Your task to perform on an android device: Show the shopping cart on target. Search for usb-c on target, select the first entry, add it to the cart, then select checkout. Image 0: 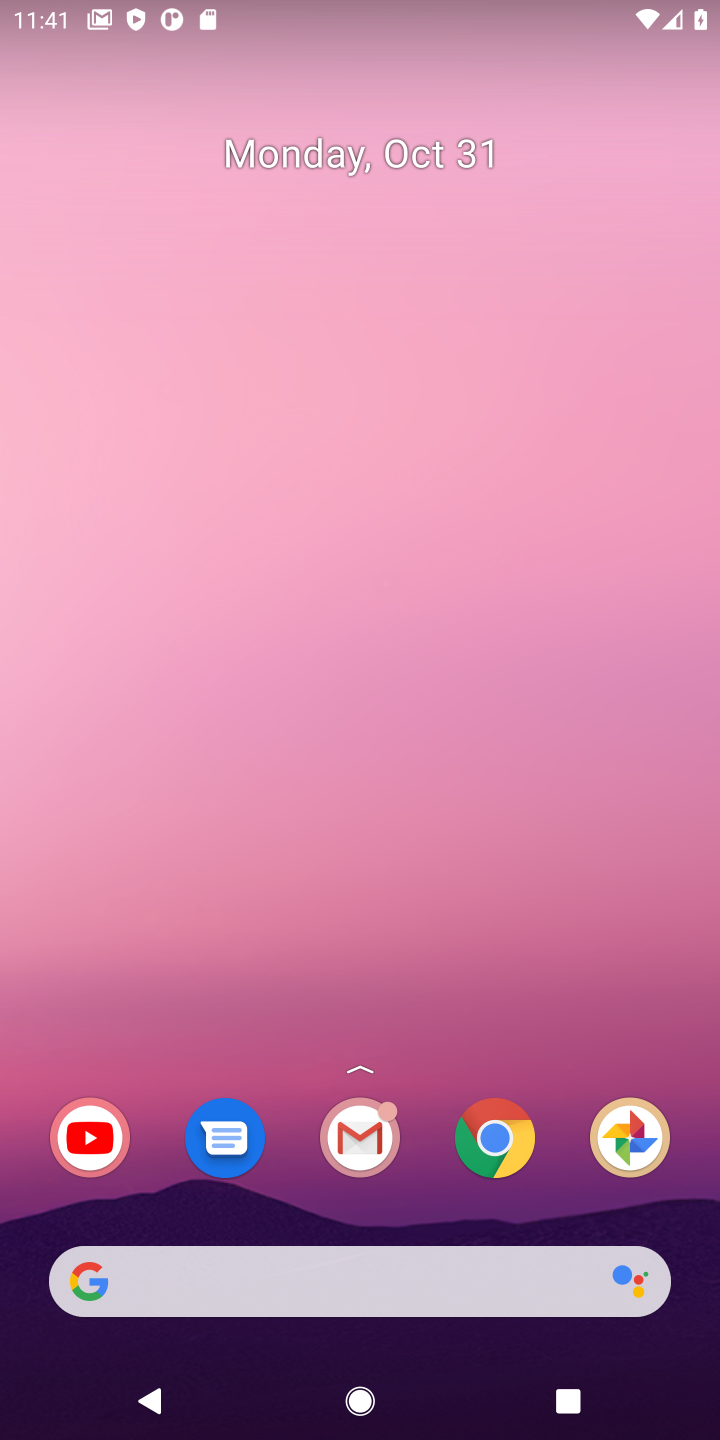
Step 0: click (520, 1128)
Your task to perform on an android device: Show the shopping cart on target. Search for usb-c on target, select the first entry, add it to the cart, then select checkout. Image 1: 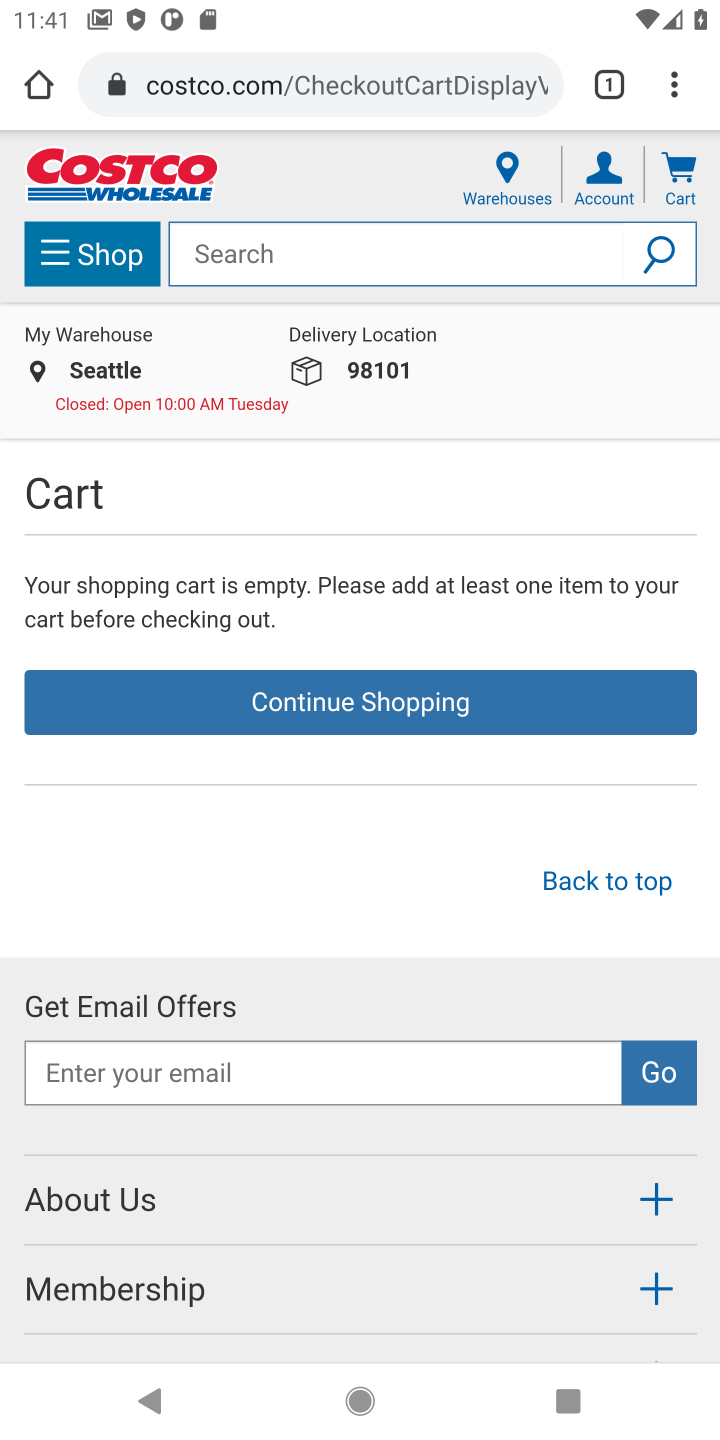
Step 1: click (226, 70)
Your task to perform on an android device: Show the shopping cart on target. Search for usb-c on target, select the first entry, add it to the cart, then select checkout. Image 2: 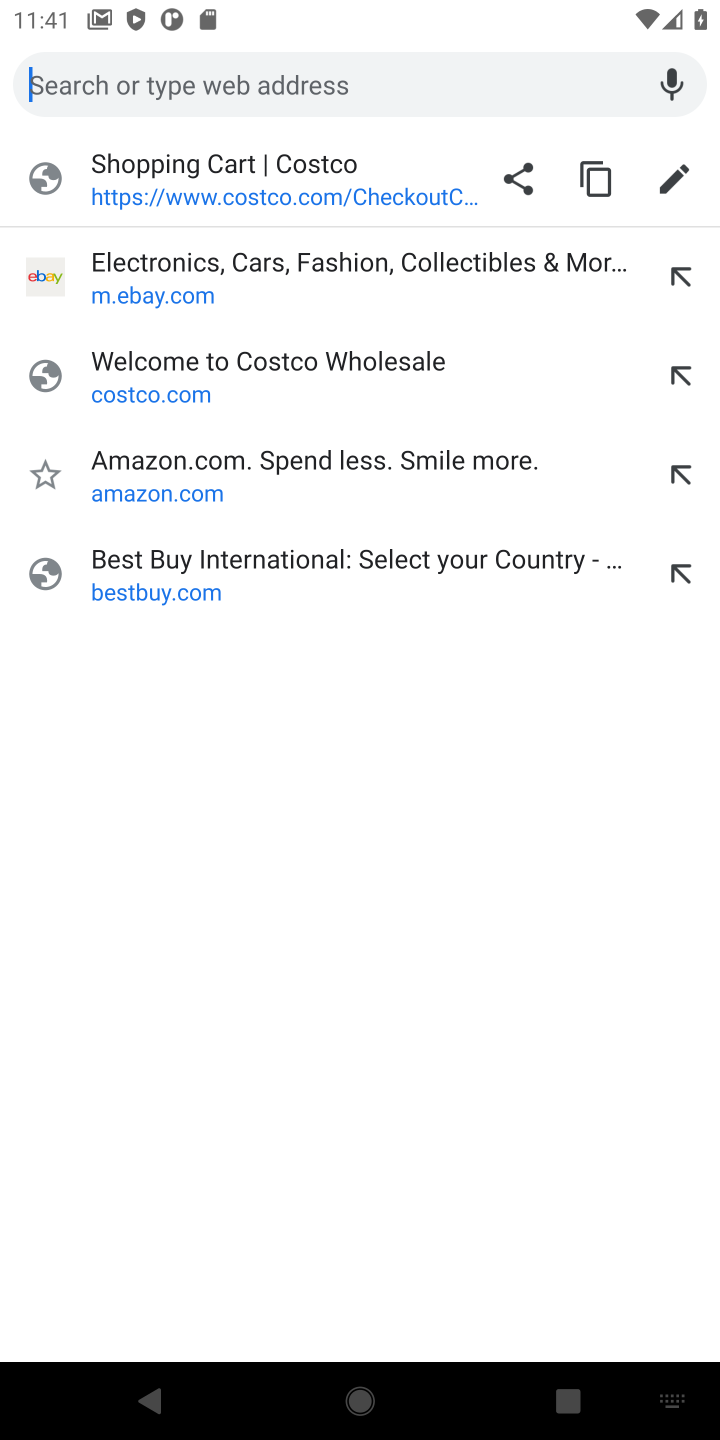
Step 2: type "target"
Your task to perform on an android device: Show the shopping cart on target. Search for usb-c on target, select the first entry, add it to the cart, then select checkout. Image 3: 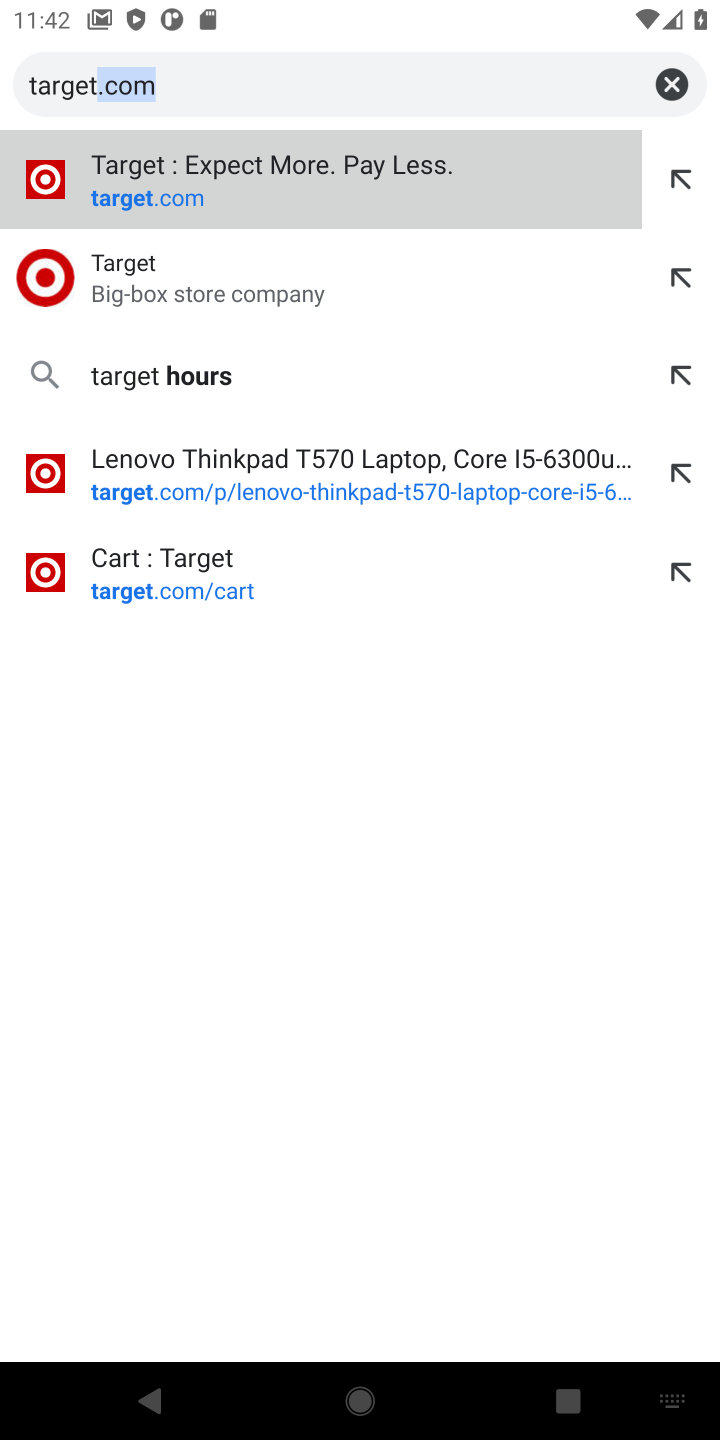
Step 3: click (302, 272)
Your task to perform on an android device: Show the shopping cart on target. Search for usb-c on target, select the first entry, add it to the cart, then select checkout. Image 4: 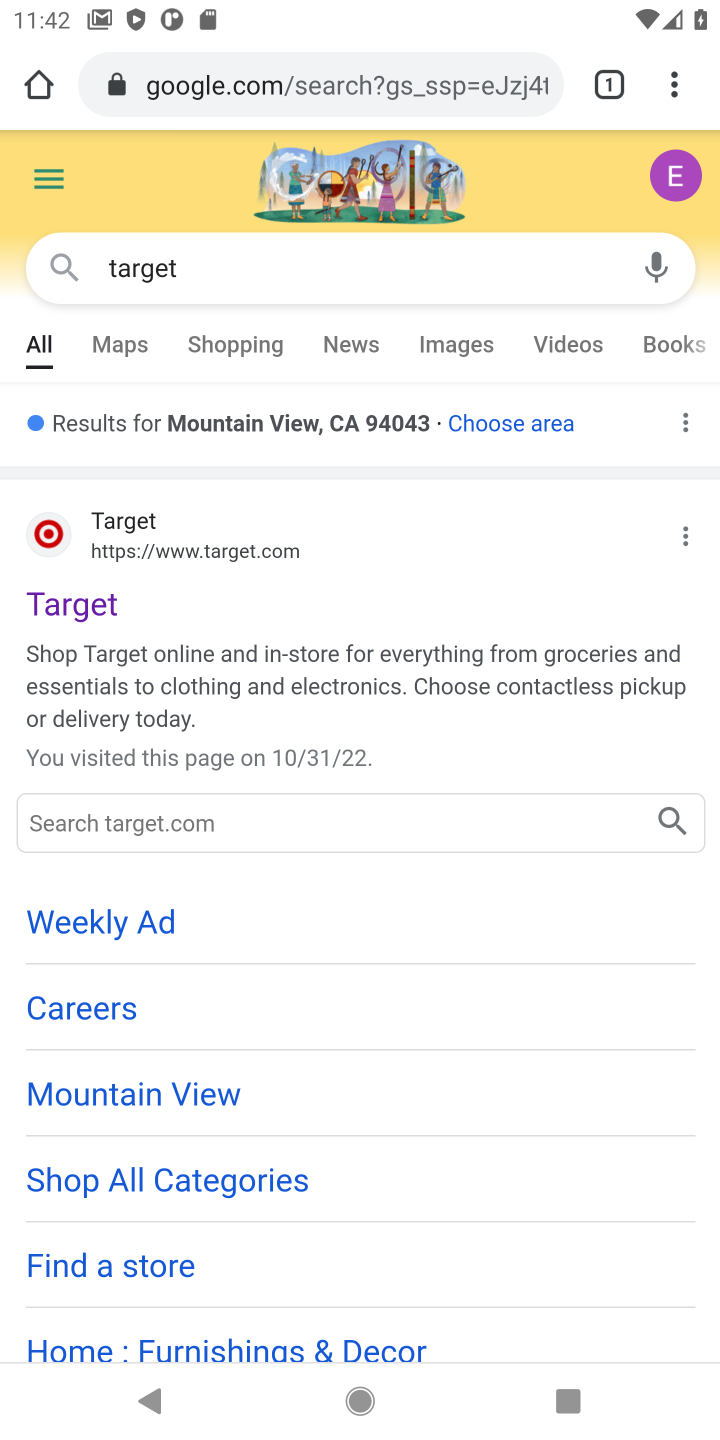
Step 4: click (44, 620)
Your task to perform on an android device: Show the shopping cart on target. Search for usb-c on target, select the first entry, add it to the cart, then select checkout. Image 5: 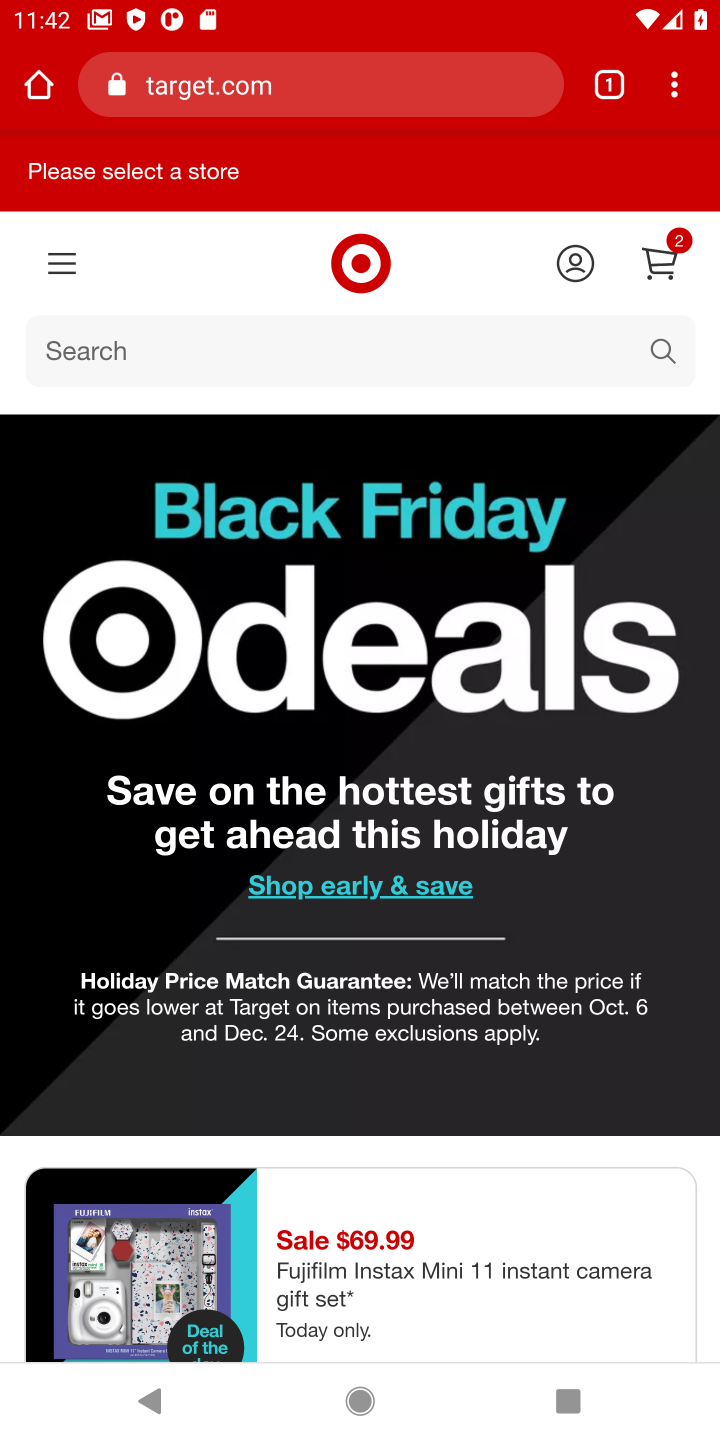
Step 5: click (661, 257)
Your task to perform on an android device: Show the shopping cart on target. Search for usb-c on target, select the first entry, add it to the cart, then select checkout. Image 6: 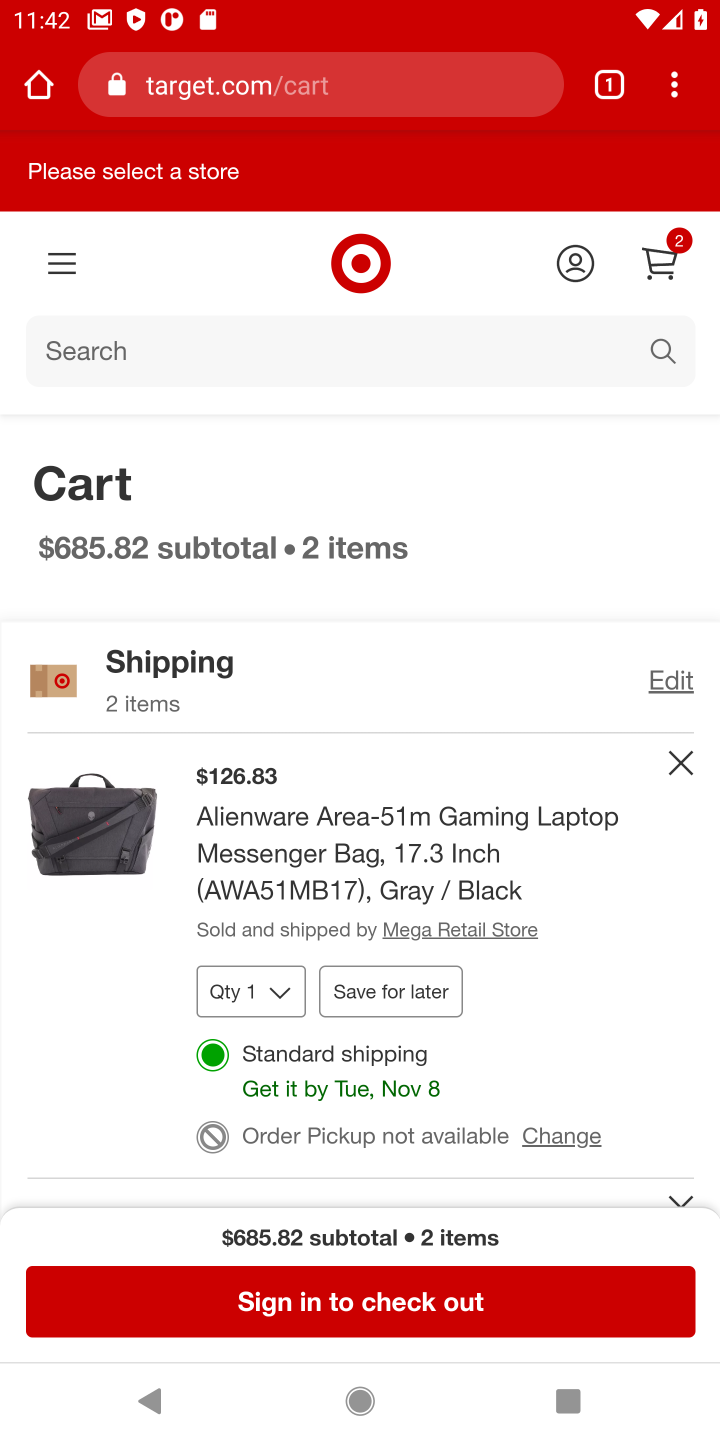
Step 6: click (333, 367)
Your task to perform on an android device: Show the shopping cart on target. Search for usb-c on target, select the first entry, add it to the cart, then select checkout. Image 7: 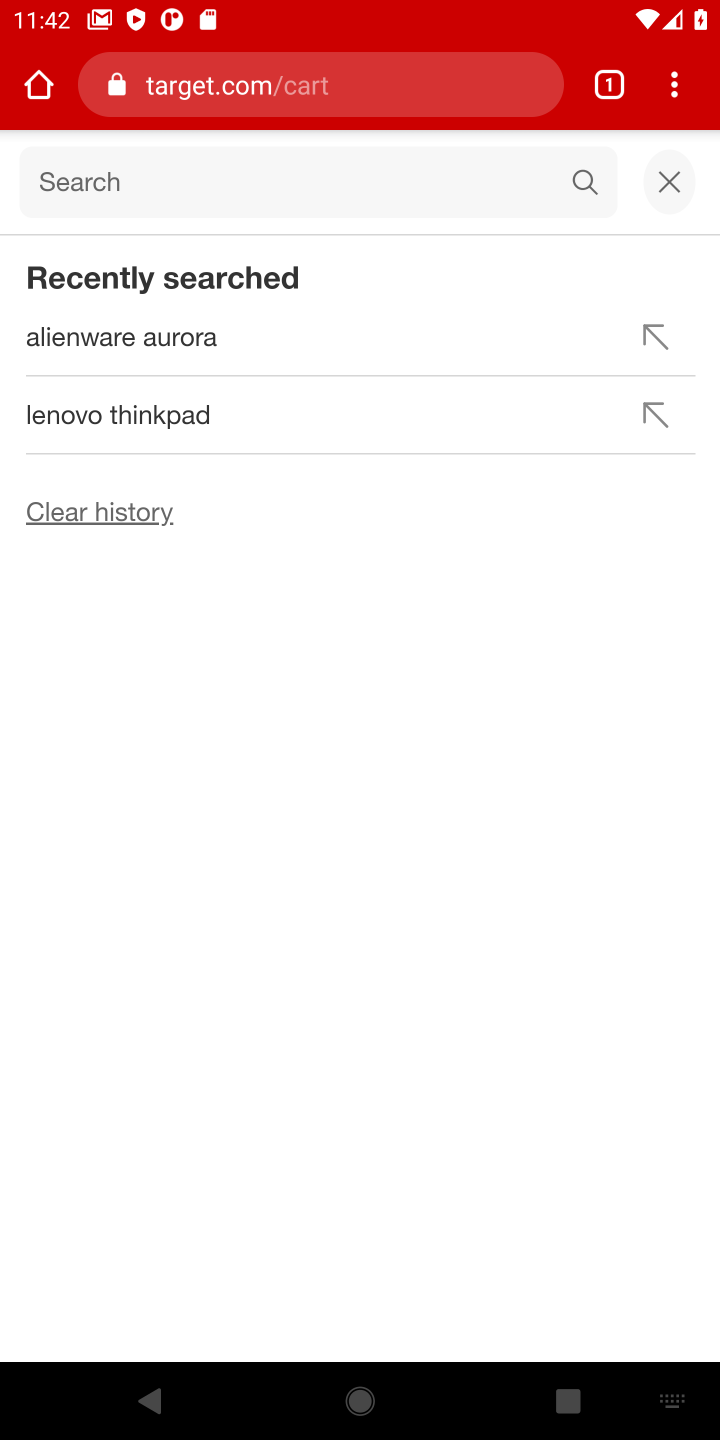
Step 7: type " usb-c "
Your task to perform on an android device: Show the shopping cart on target. Search for usb-c on target, select the first entry, add it to the cart, then select checkout. Image 8: 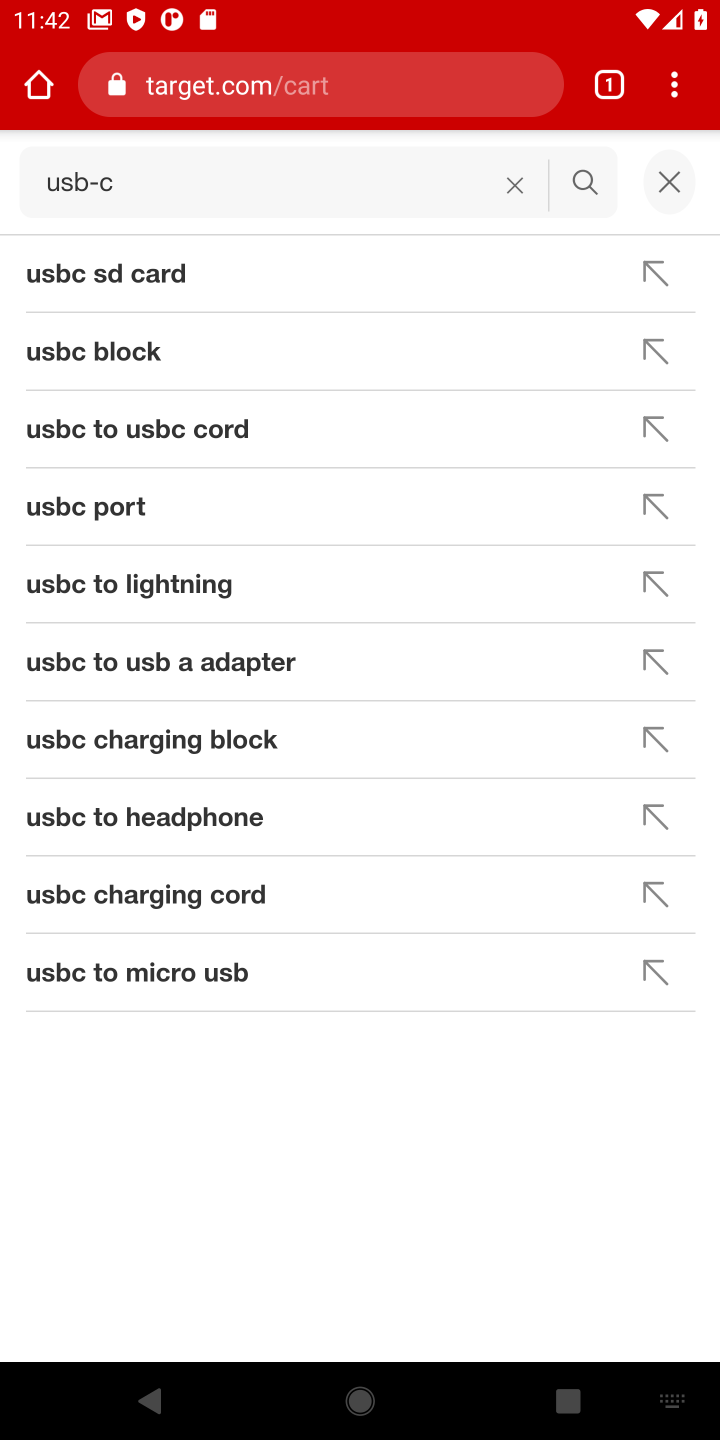
Step 8: click (577, 163)
Your task to perform on an android device: Show the shopping cart on target. Search for usb-c on target, select the first entry, add it to the cart, then select checkout. Image 9: 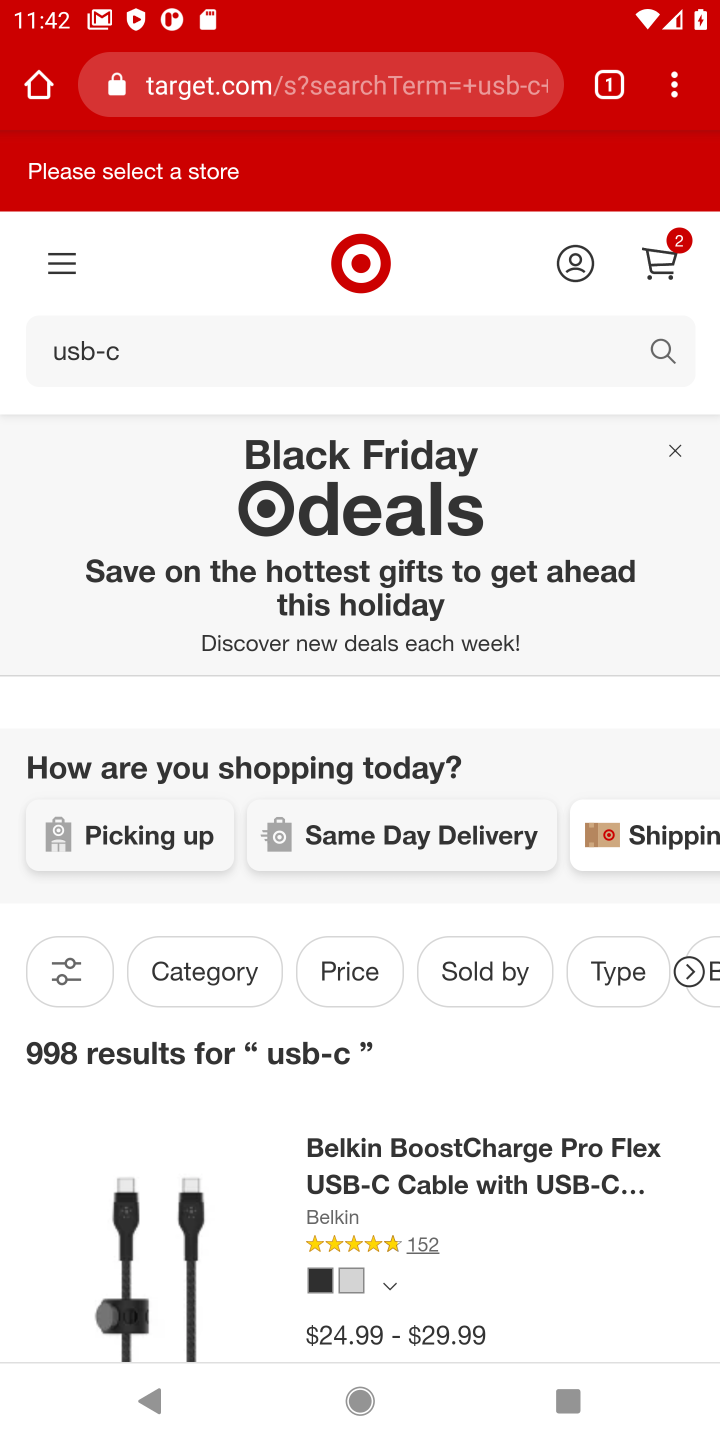
Step 9: click (499, 1141)
Your task to perform on an android device: Show the shopping cart on target. Search for usb-c on target, select the first entry, add it to the cart, then select checkout. Image 10: 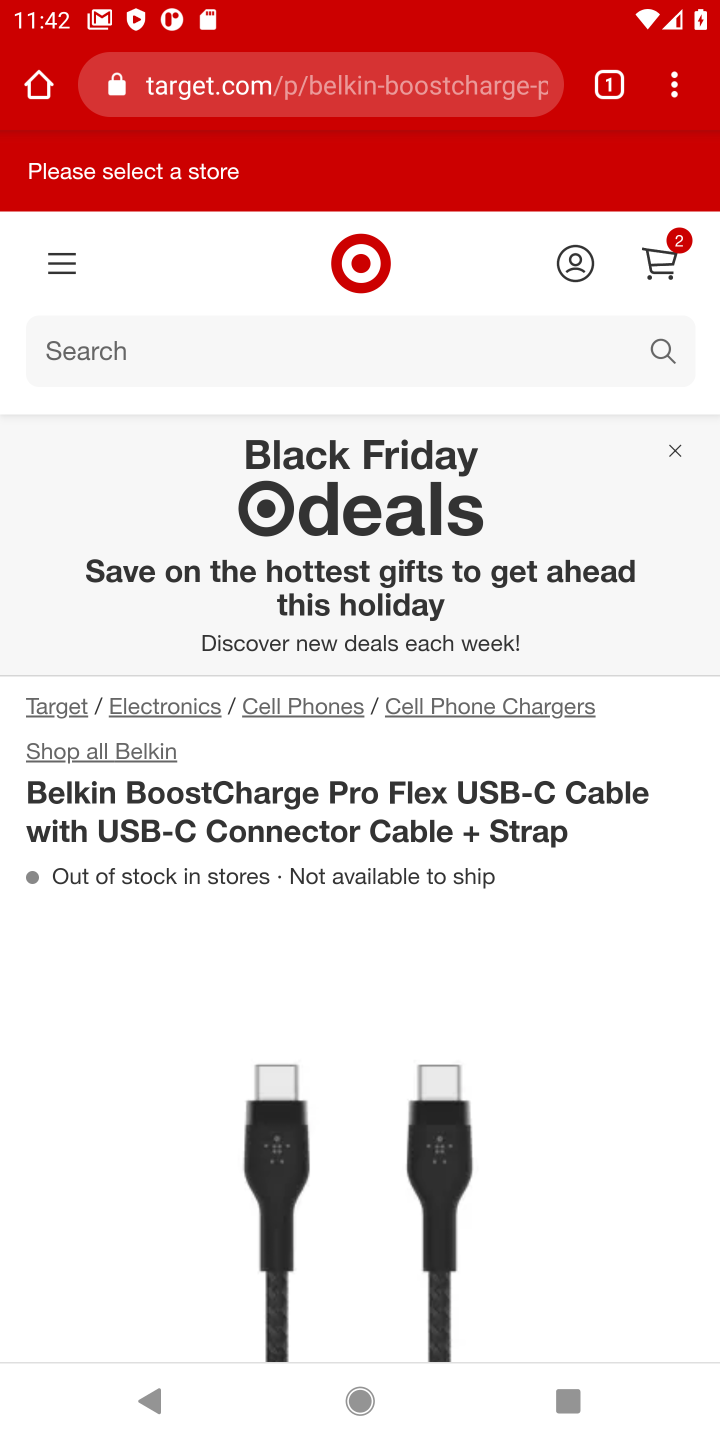
Step 10: drag from (499, 1129) to (445, 320)
Your task to perform on an android device: Show the shopping cart on target. Search for usb-c on target, select the first entry, add it to the cart, then select checkout. Image 11: 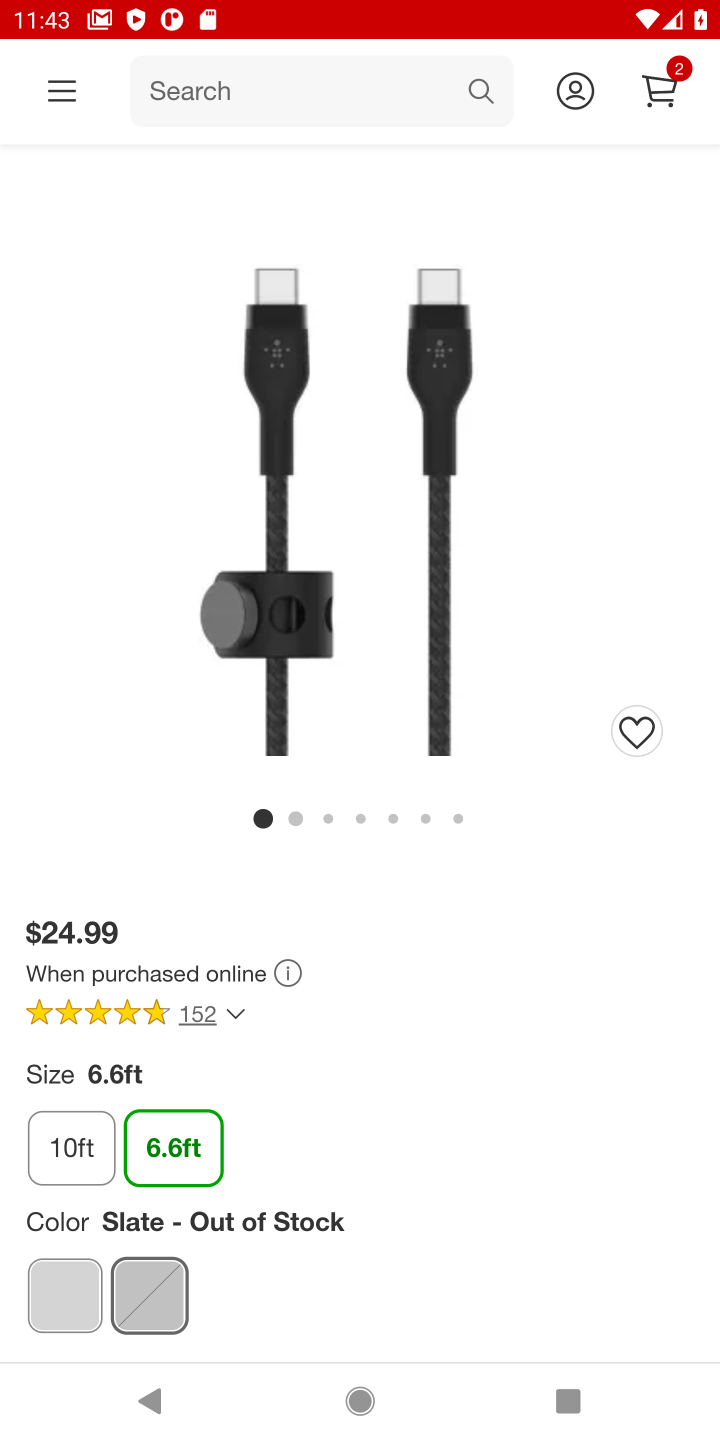
Step 11: click (65, 1278)
Your task to perform on an android device: Show the shopping cart on target. Search for usb-c on target, select the first entry, add it to the cart, then select checkout. Image 12: 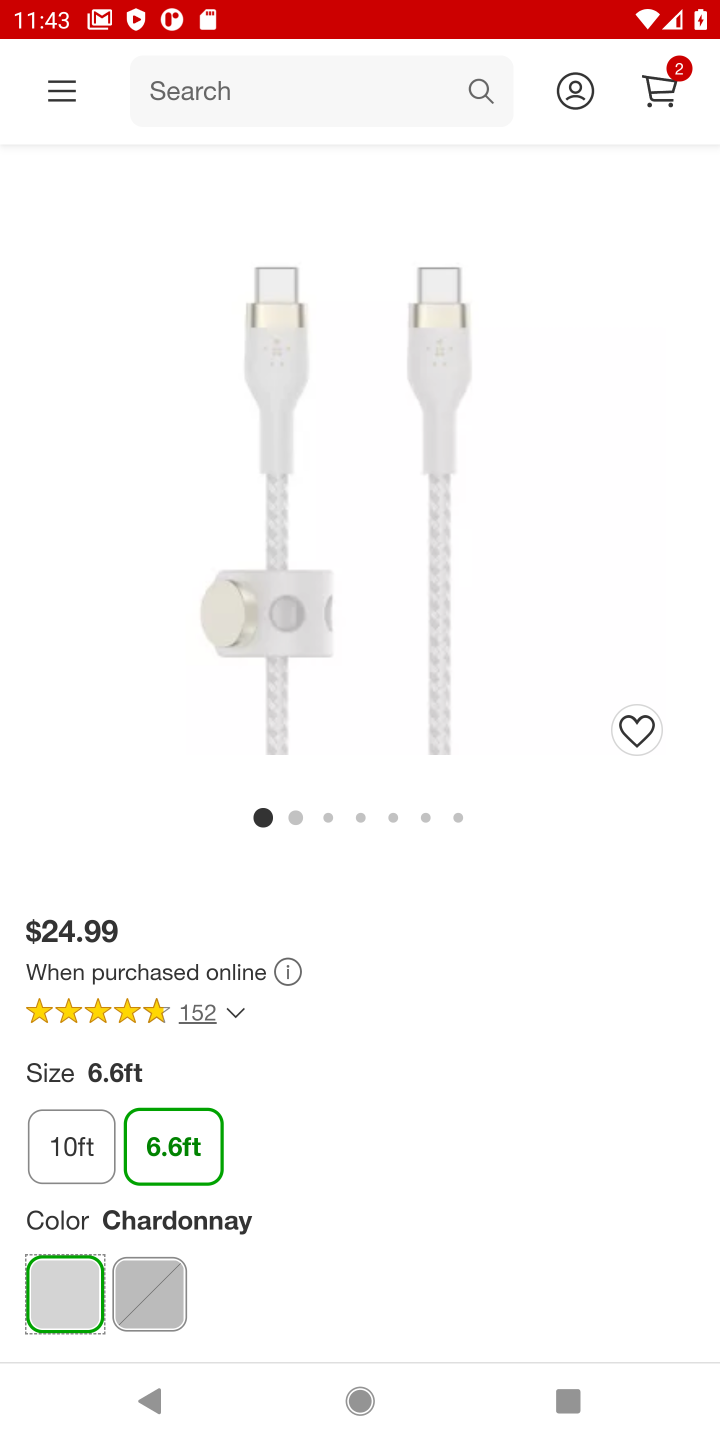
Step 12: drag from (586, 1263) to (606, 737)
Your task to perform on an android device: Show the shopping cart on target. Search for usb-c on target, select the first entry, add it to the cart, then select checkout. Image 13: 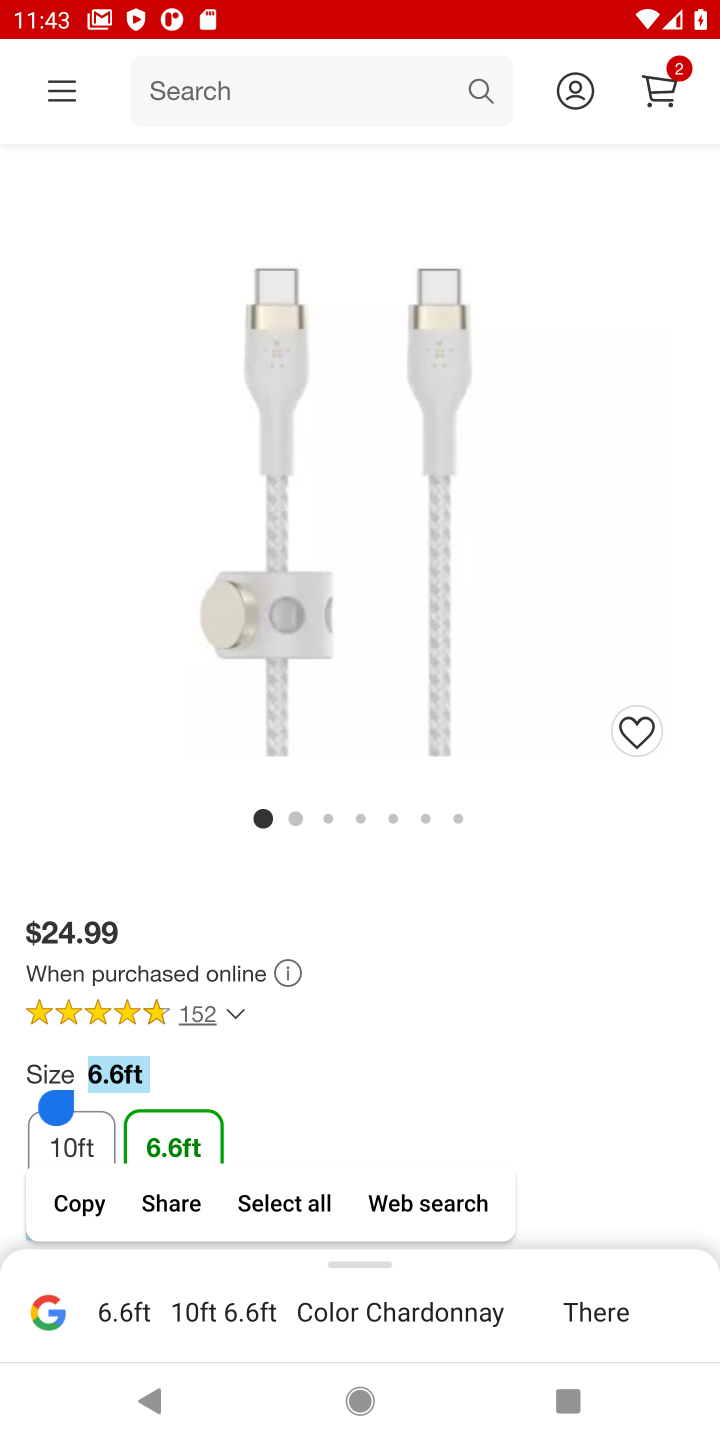
Step 13: drag from (362, 1115) to (397, 535)
Your task to perform on an android device: Show the shopping cart on target. Search for usb-c on target, select the first entry, add it to the cart, then select checkout. Image 14: 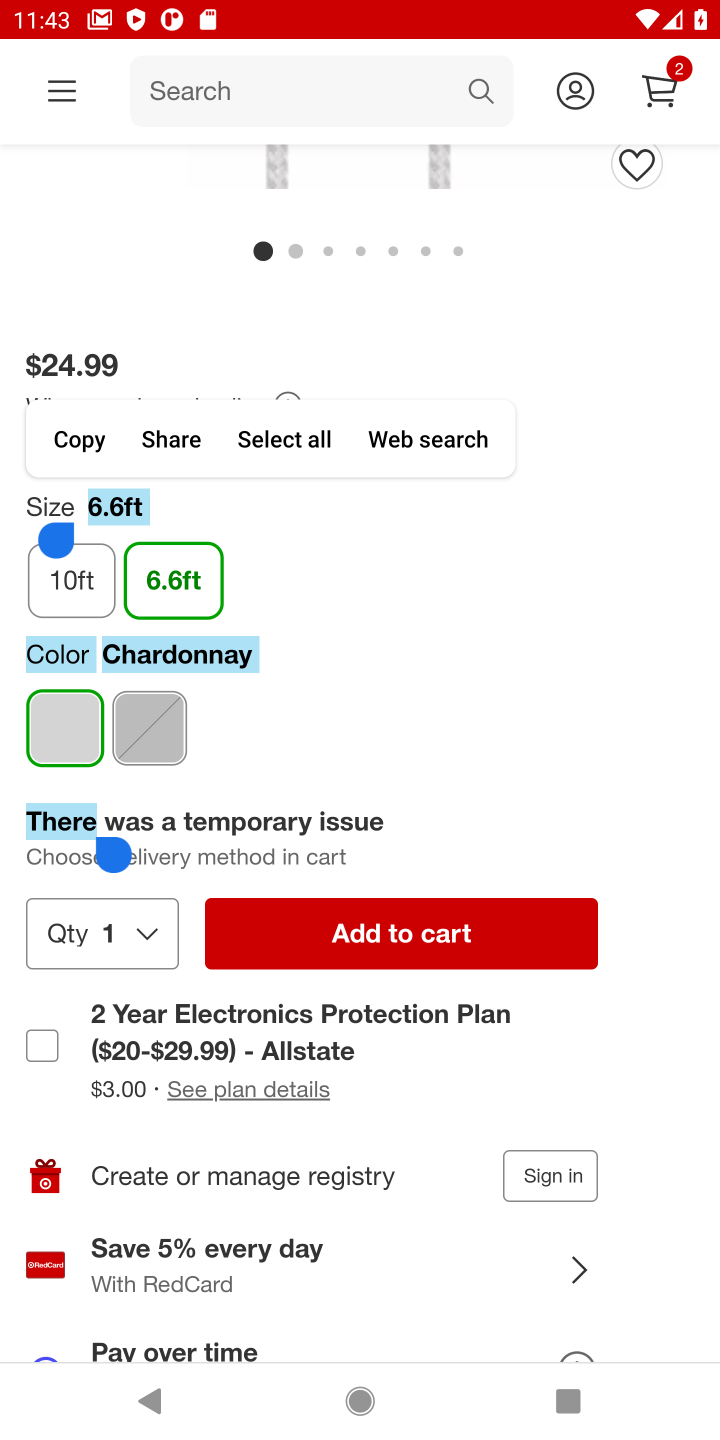
Step 14: click (391, 949)
Your task to perform on an android device: Show the shopping cart on target. Search for usb-c on target, select the first entry, add it to the cart, then select checkout. Image 15: 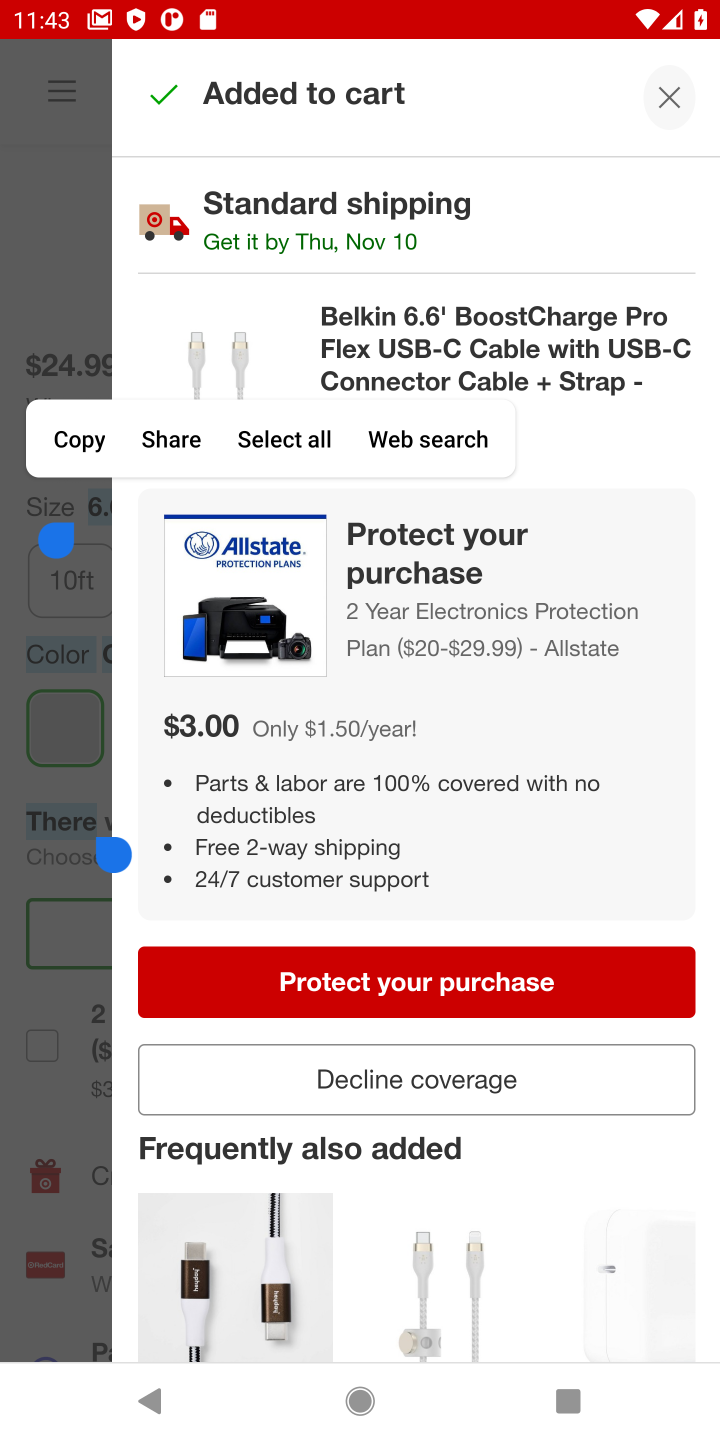
Step 15: click (667, 109)
Your task to perform on an android device: Show the shopping cart on target. Search for usb-c on target, select the first entry, add it to the cart, then select checkout. Image 16: 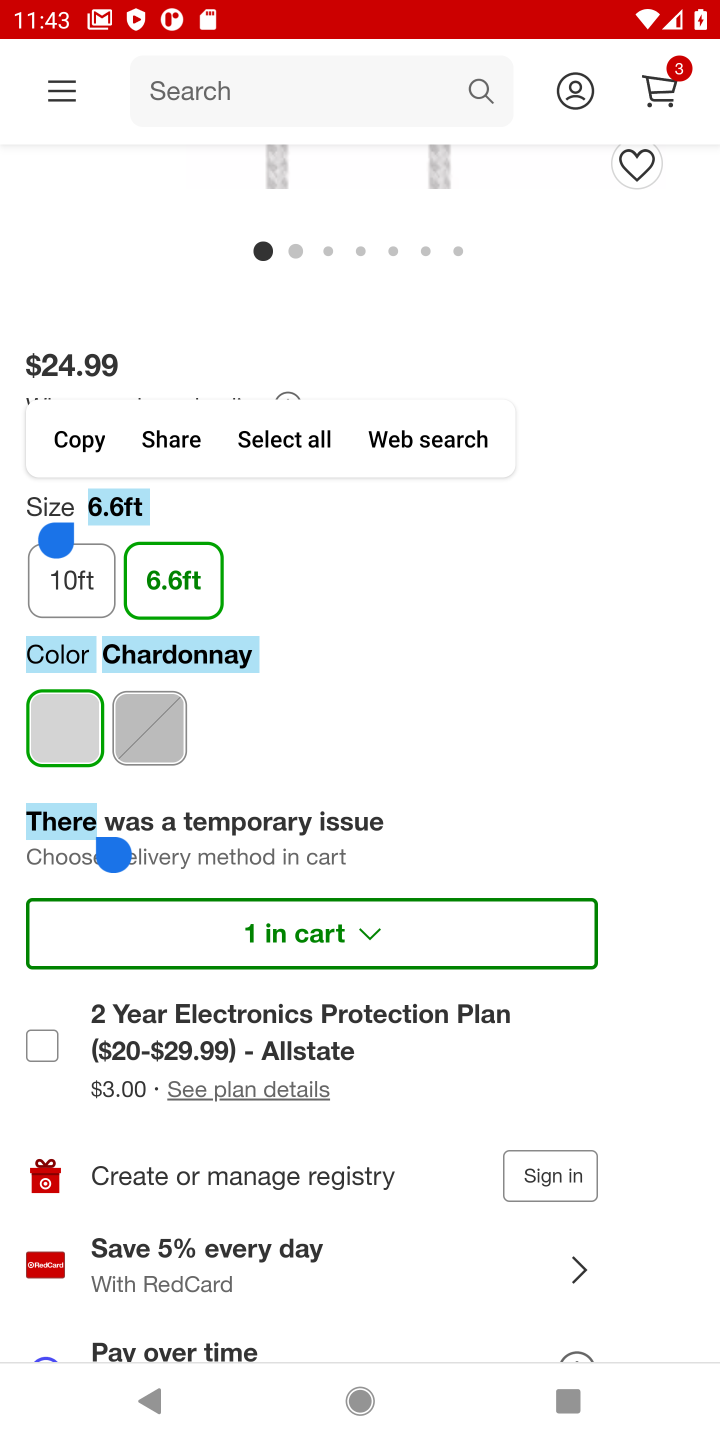
Step 16: click (666, 85)
Your task to perform on an android device: Show the shopping cart on target. Search for usb-c on target, select the first entry, add it to the cart, then select checkout. Image 17: 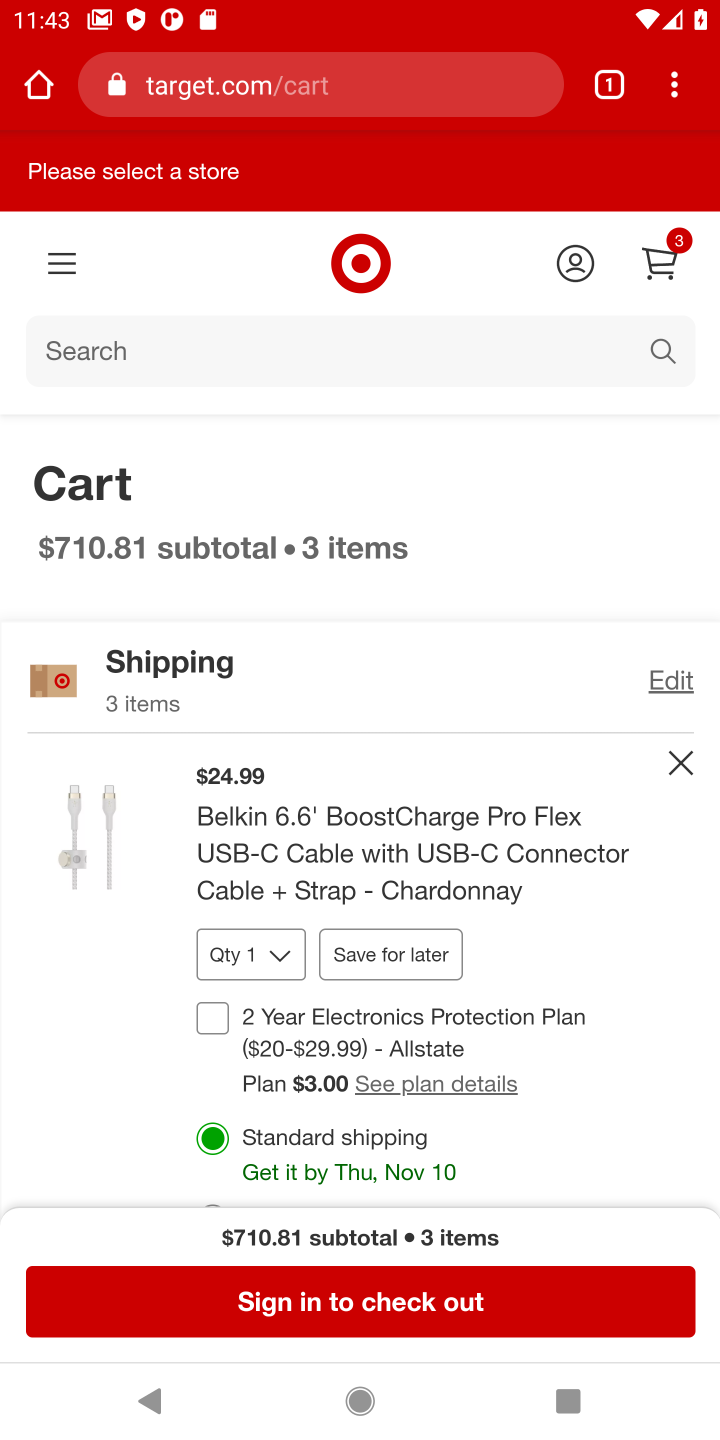
Step 17: click (547, 1311)
Your task to perform on an android device: Show the shopping cart on target. Search for usb-c on target, select the first entry, add it to the cart, then select checkout. Image 18: 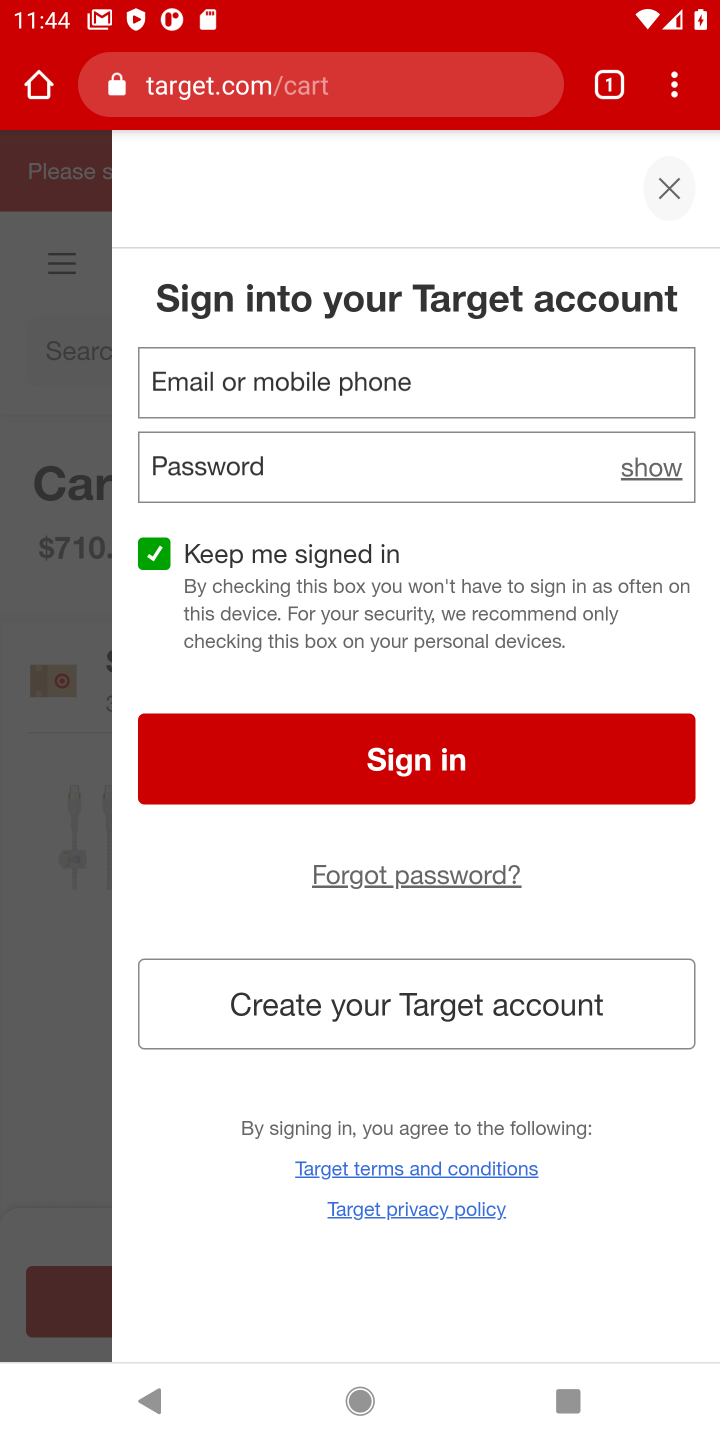
Step 18: task complete